Your task to perform on an android device: turn on data saver in the chrome app Image 0: 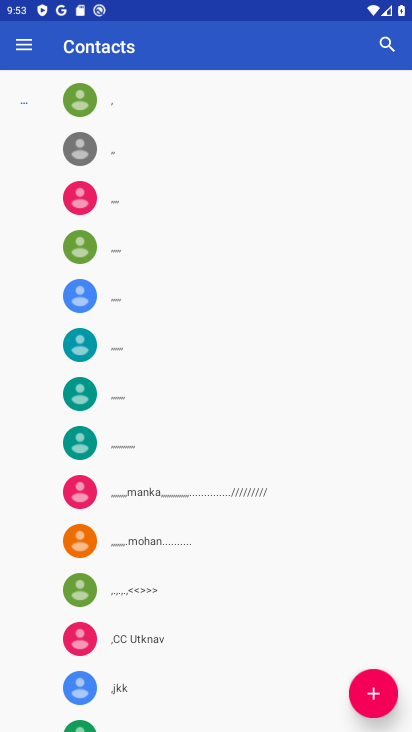
Step 0: press home button
Your task to perform on an android device: turn on data saver in the chrome app Image 1: 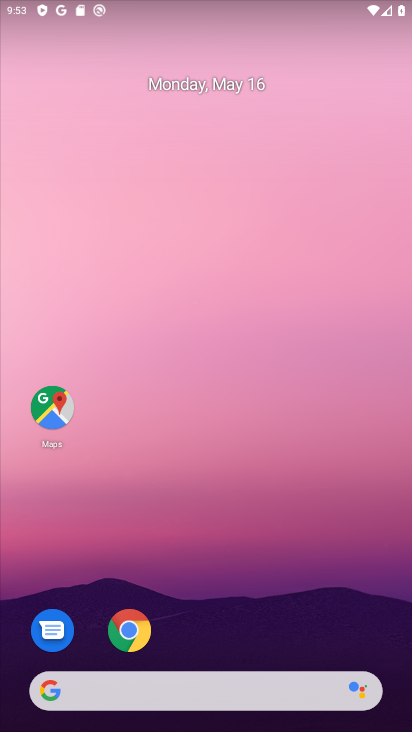
Step 1: drag from (256, 628) to (293, 33)
Your task to perform on an android device: turn on data saver in the chrome app Image 2: 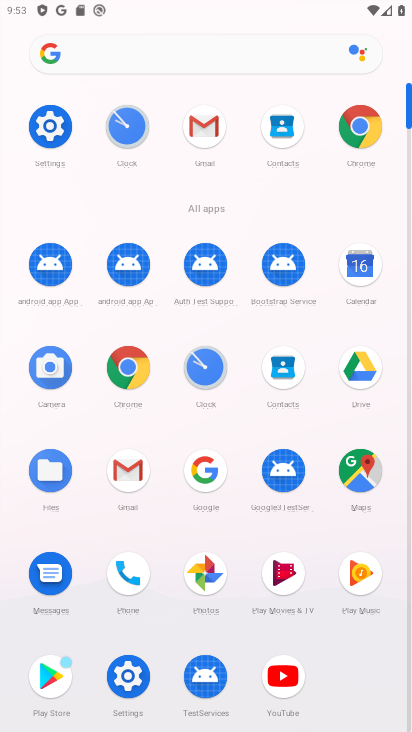
Step 2: click (370, 147)
Your task to perform on an android device: turn on data saver in the chrome app Image 3: 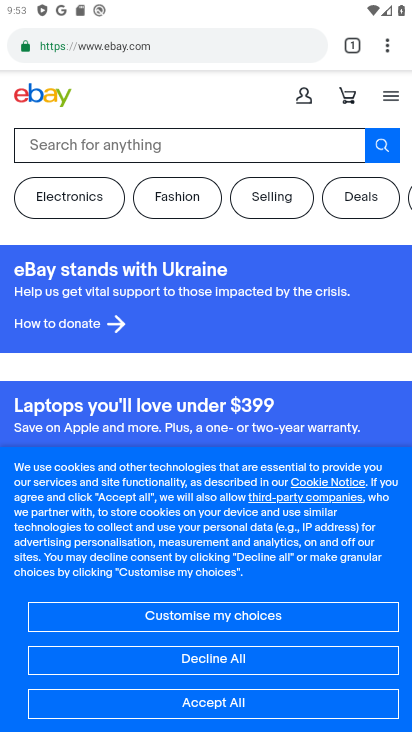
Step 3: click (386, 51)
Your task to perform on an android device: turn on data saver in the chrome app Image 4: 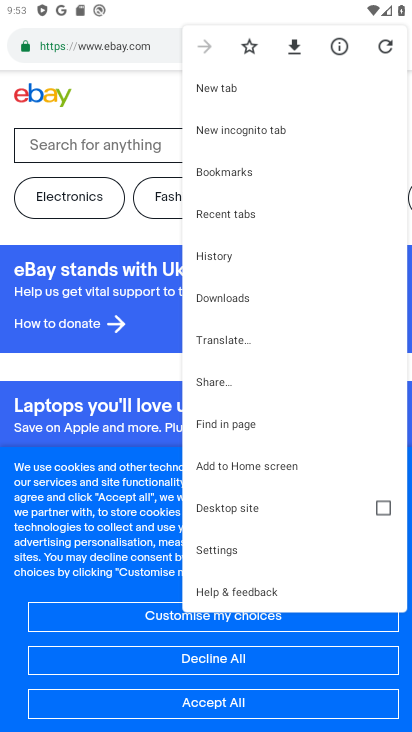
Step 4: click (235, 553)
Your task to perform on an android device: turn on data saver in the chrome app Image 5: 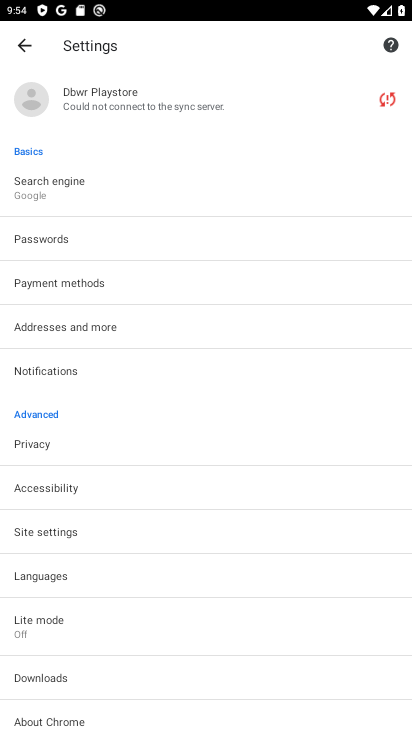
Step 5: click (48, 636)
Your task to perform on an android device: turn on data saver in the chrome app Image 6: 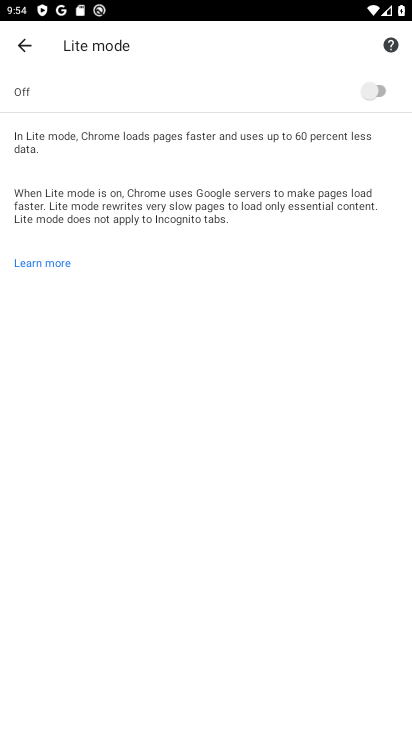
Step 6: click (361, 98)
Your task to perform on an android device: turn on data saver in the chrome app Image 7: 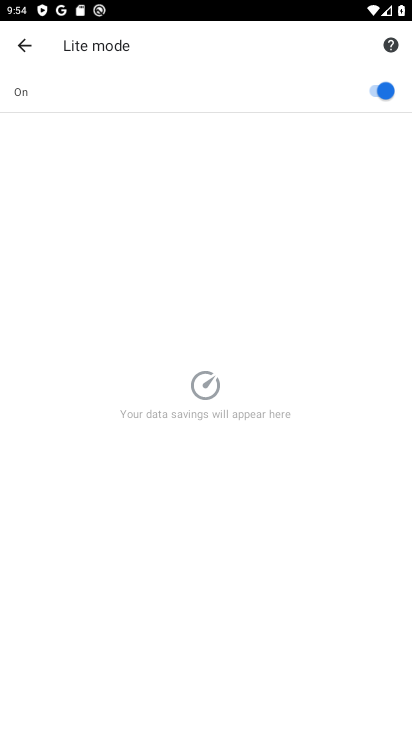
Step 7: task complete